Your task to perform on an android device: manage bookmarks in the chrome app Image 0: 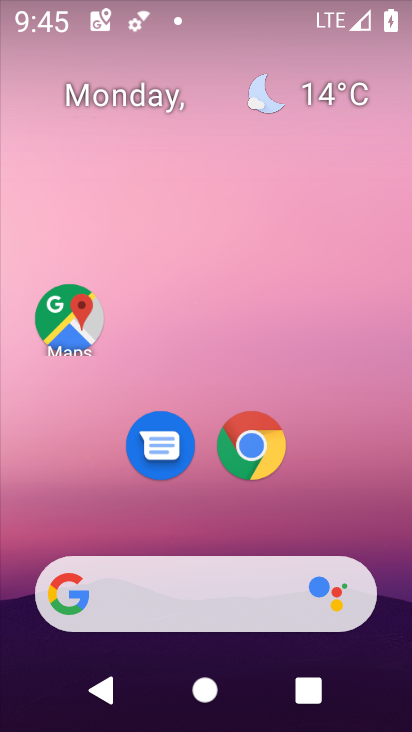
Step 0: press home button
Your task to perform on an android device: manage bookmarks in the chrome app Image 1: 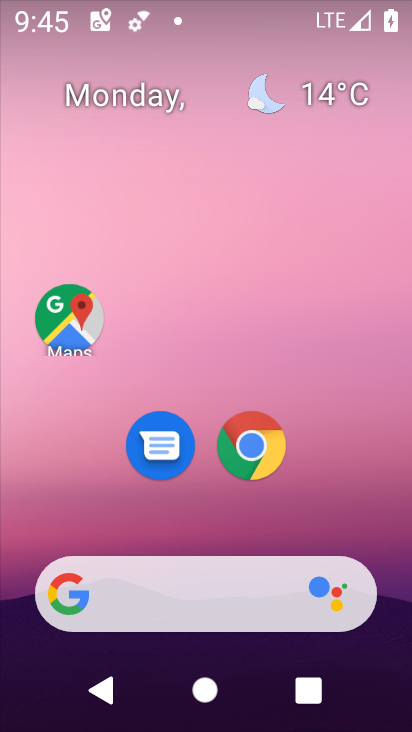
Step 1: click (247, 442)
Your task to perform on an android device: manage bookmarks in the chrome app Image 2: 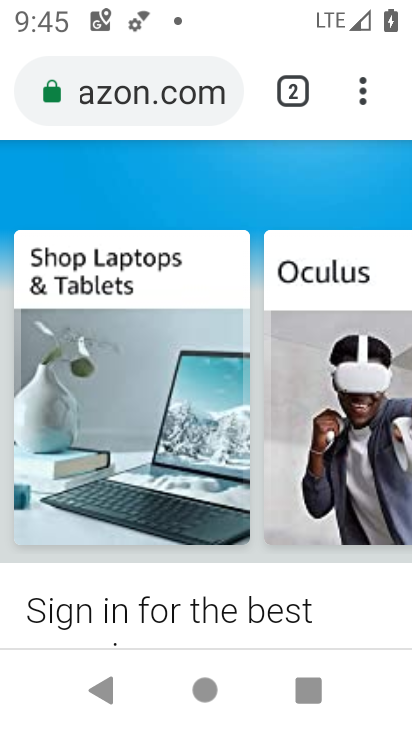
Step 2: click (363, 84)
Your task to perform on an android device: manage bookmarks in the chrome app Image 3: 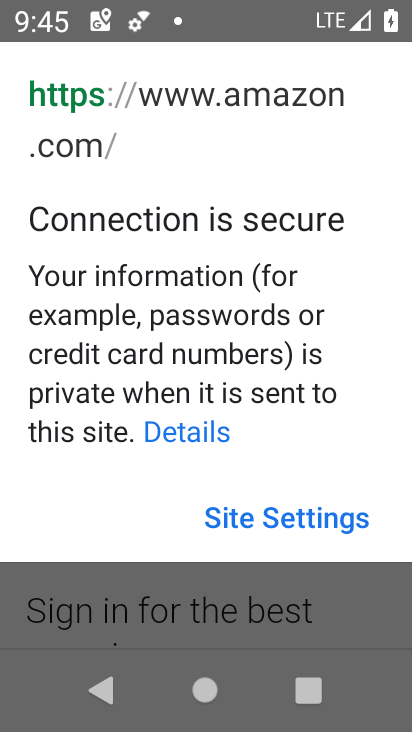
Step 3: click (152, 633)
Your task to perform on an android device: manage bookmarks in the chrome app Image 4: 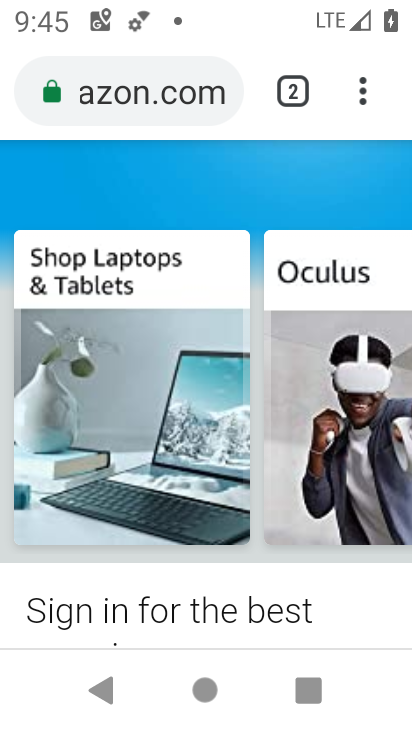
Step 4: click (361, 93)
Your task to perform on an android device: manage bookmarks in the chrome app Image 5: 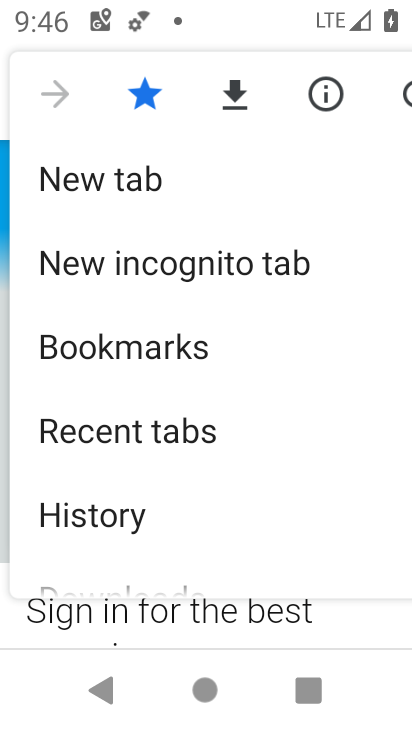
Step 5: click (216, 338)
Your task to perform on an android device: manage bookmarks in the chrome app Image 6: 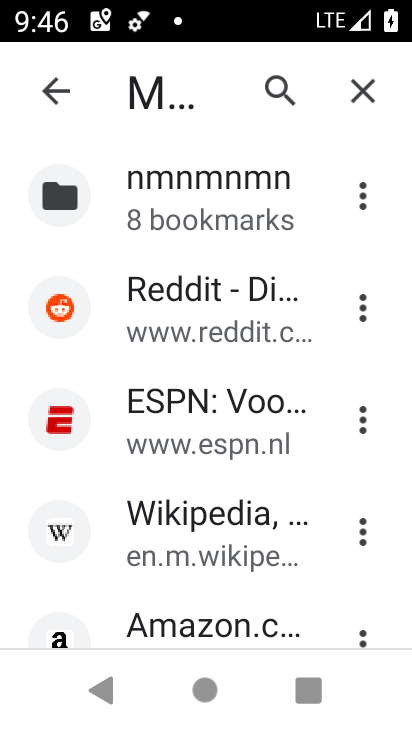
Step 6: click (363, 530)
Your task to perform on an android device: manage bookmarks in the chrome app Image 7: 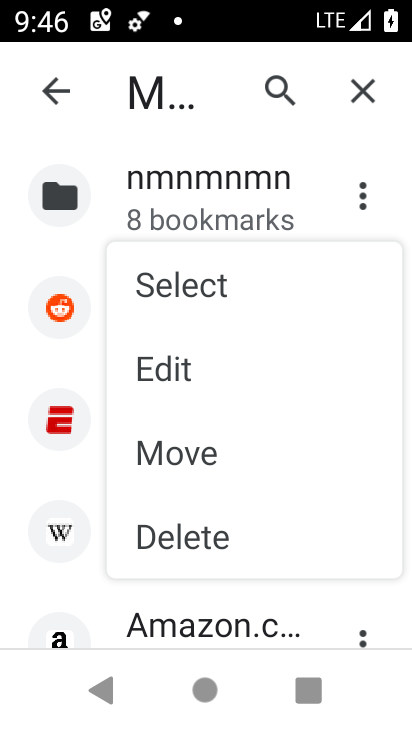
Step 7: click (246, 538)
Your task to perform on an android device: manage bookmarks in the chrome app Image 8: 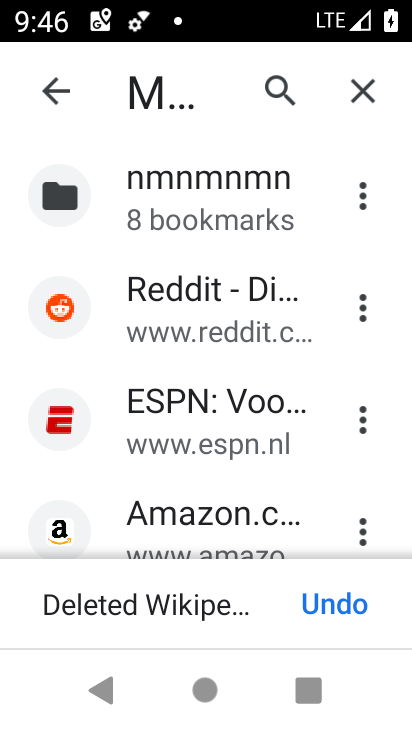
Step 8: task complete